Your task to perform on an android device: change the upload size in google photos Image 0: 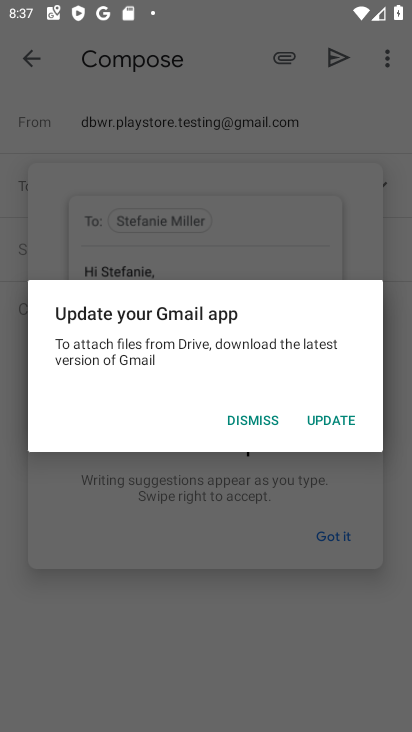
Step 0: press home button
Your task to perform on an android device: change the upload size in google photos Image 1: 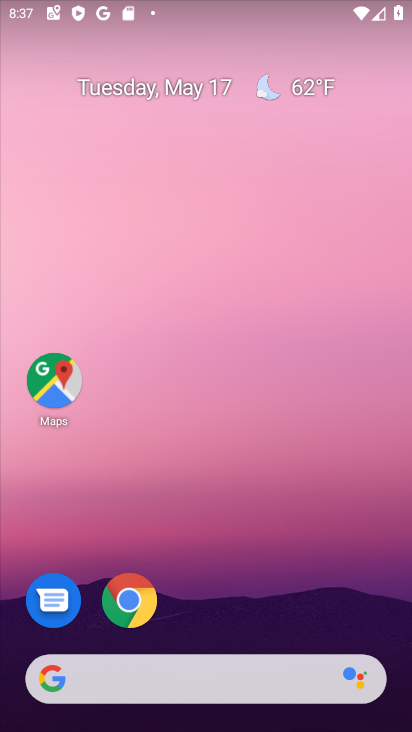
Step 1: drag from (191, 722) to (190, 187)
Your task to perform on an android device: change the upload size in google photos Image 2: 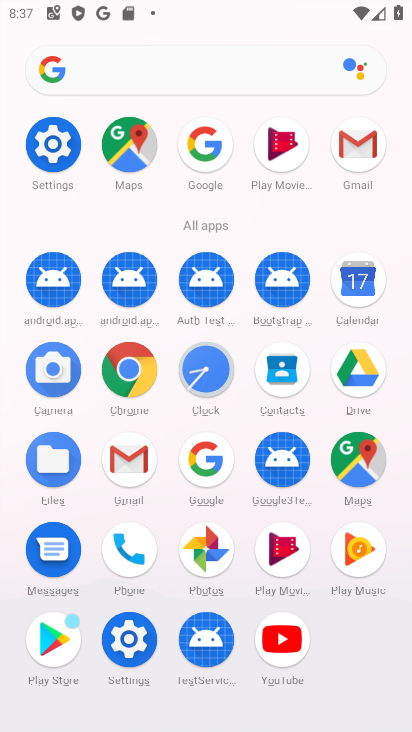
Step 2: click (215, 542)
Your task to perform on an android device: change the upload size in google photos Image 3: 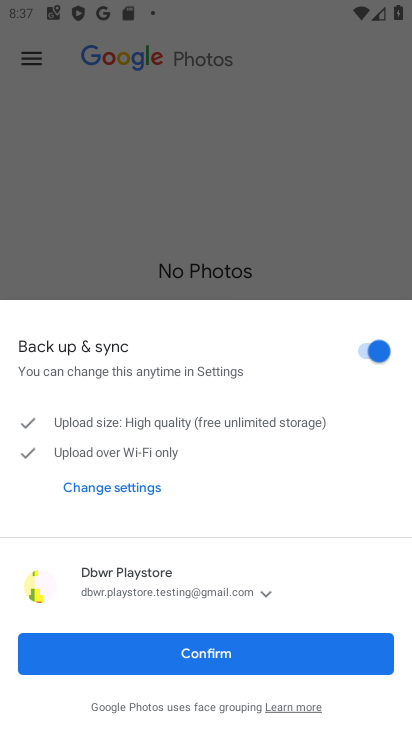
Step 3: click (207, 660)
Your task to perform on an android device: change the upload size in google photos Image 4: 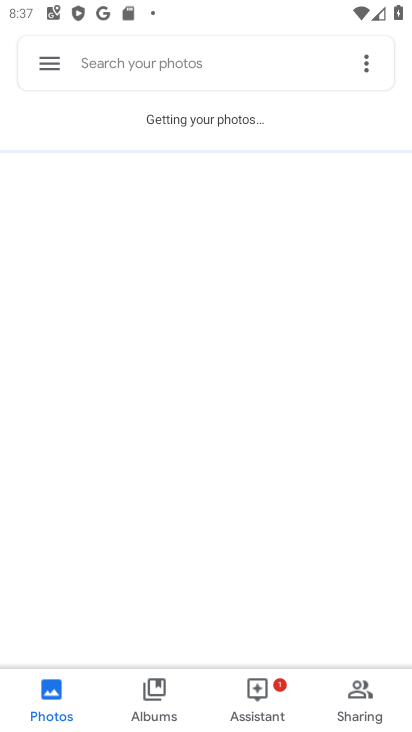
Step 4: click (46, 61)
Your task to perform on an android device: change the upload size in google photos Image 5: 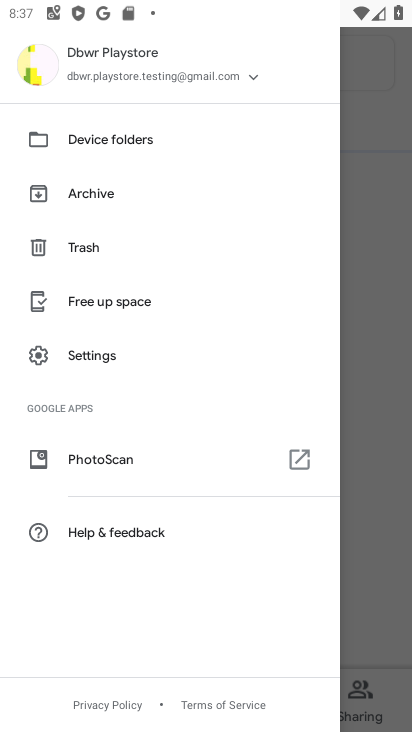
Step 5: click (93, 346)
Your task to perform on an android device: change the upload size in google photos Image 6: 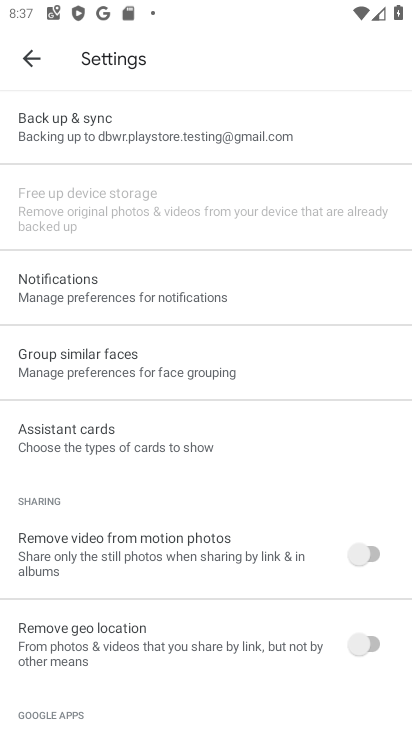
Step 6: click (82, 124)
Your task to perform on an android device: change the upload size in google photos Image 7: 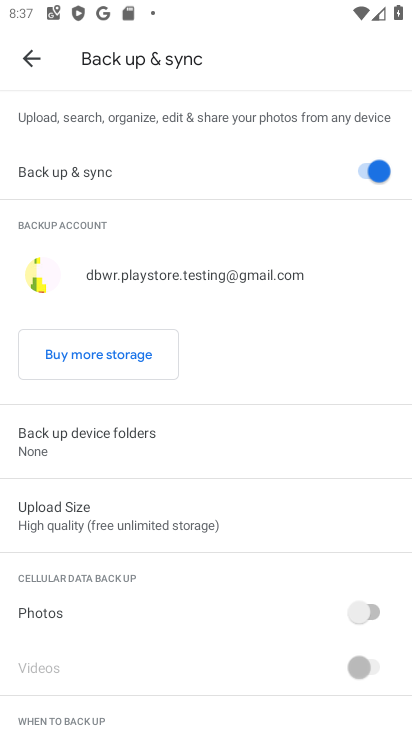
Step 7: click (62, 525)
Your task to perform on an android device: change the upload size in google photos Image 8: 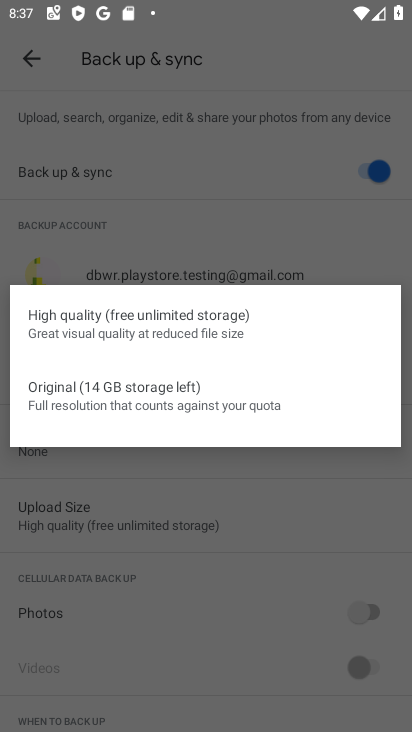
Step 8: click (90, 391)
Your task to perform on an android device: change the upload size in google photos Image 9: 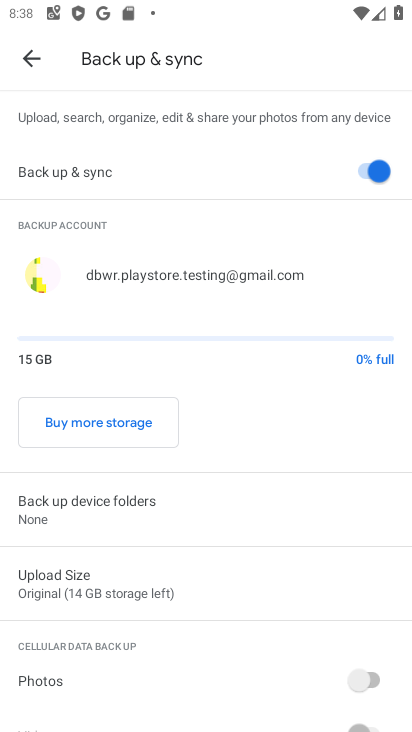
Step 9: task complete